Your task to perform on an android device: Go to Google maps Image 0: 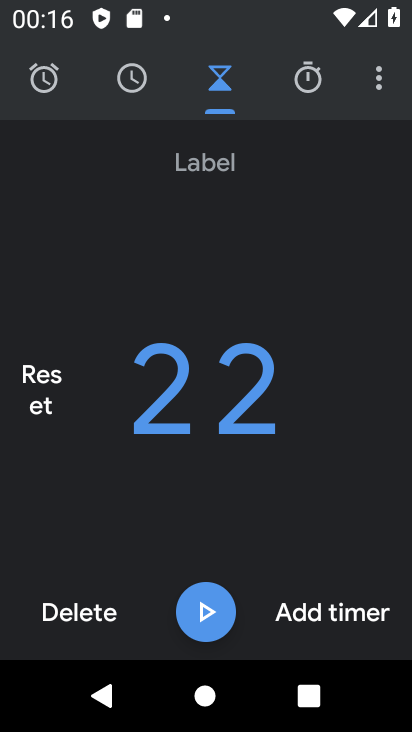
Step 0: press home button
Your task to perform on an android device: Go to Google maps Image 1: 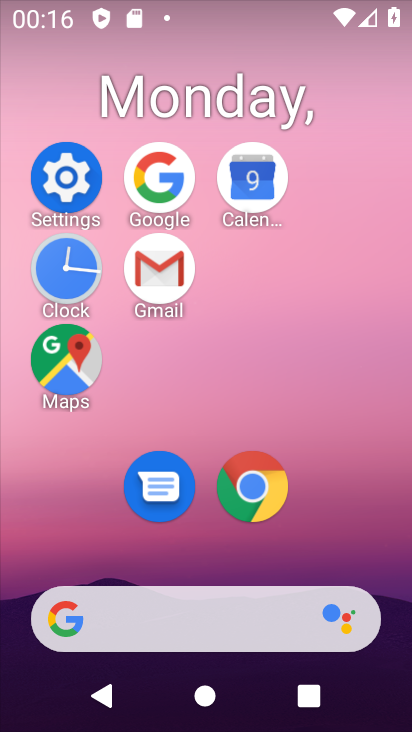
Step 1: click (68, 359)
Your task to perform on an android device: Go to Google maps Image 2: 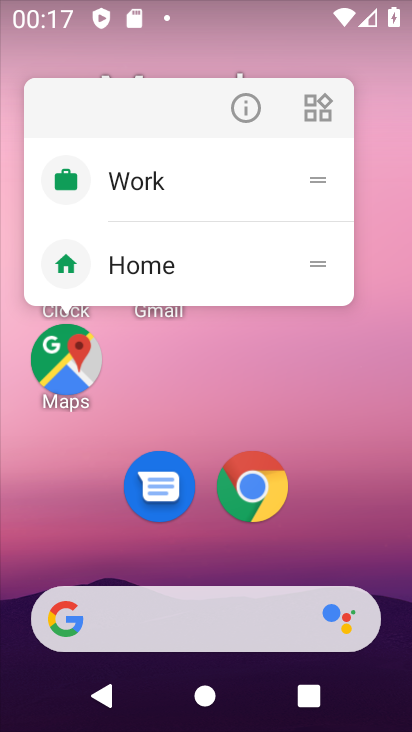
Step 2: click (63, 382)
Your task to perform on an android device: Go to Google maps Image 3: 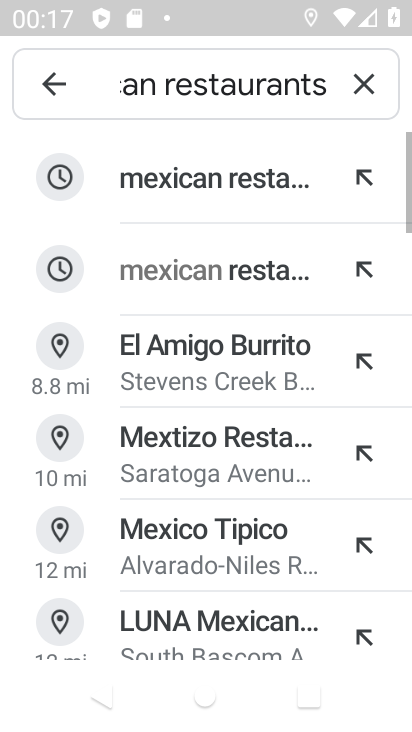
Step 3: task complete